Your task to perform on an android device: refresh tabs in the chrome app Image 0: 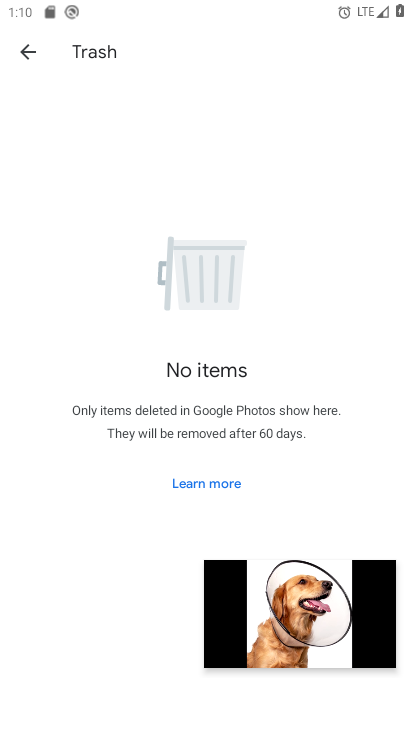
Step 0: press home button
Your task to perform on an android device: refresh tabs in the chrome app Image 1: 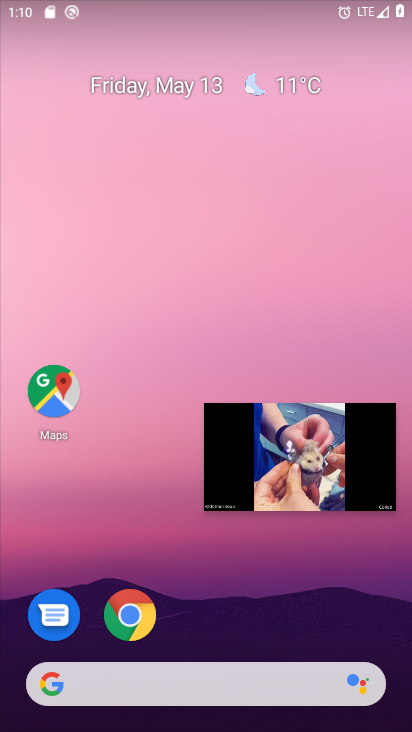
Step 1: drag from (136, 526) to (169, 194)
Your task to perform on an android device: refresh tabs in the chrome app Image 2: 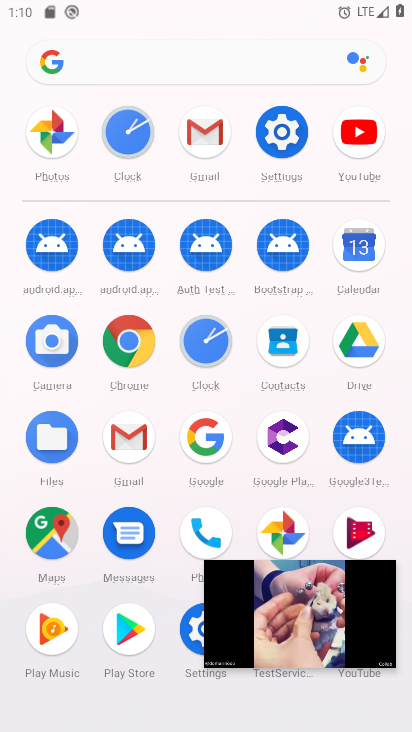
Step 2: click (124, 346)
Your task to perform on an android device: refresh tabs in the chrome app Image 3: 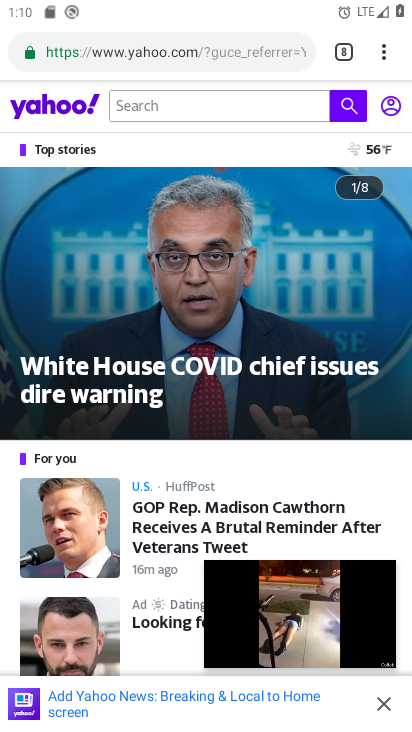
Step 3: click (381, 54)
Your task to perform on an android device: refresh tabs in the chrome app Image 4: 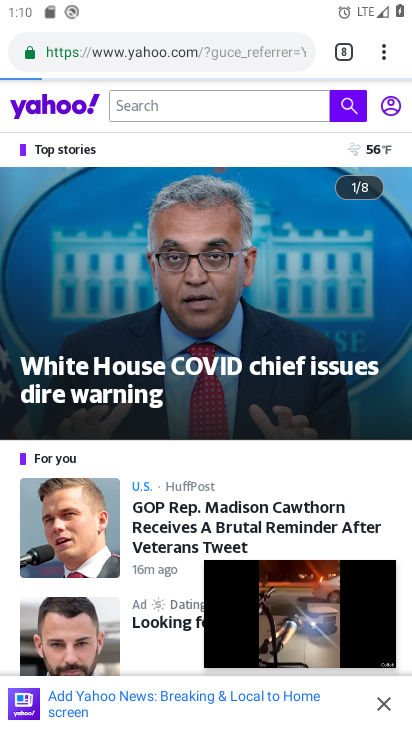
Step 4: click (381, 54)
Your task to perform on an android device: refresh tabs in the chrome app Image 5: 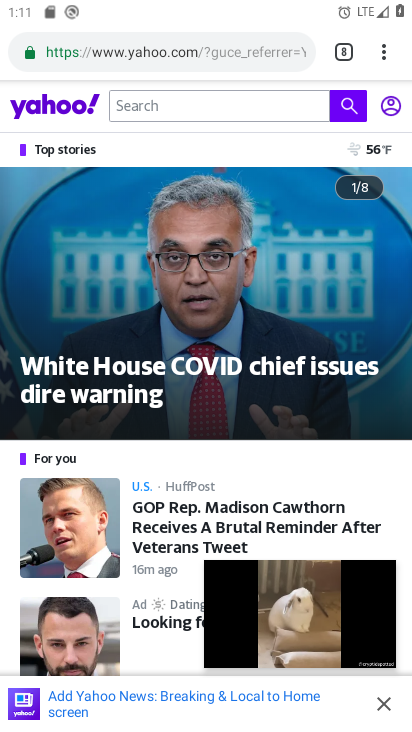
Step 5: task complete